Your task to perform on an android device: Open Maps and search for coffee Image 0: 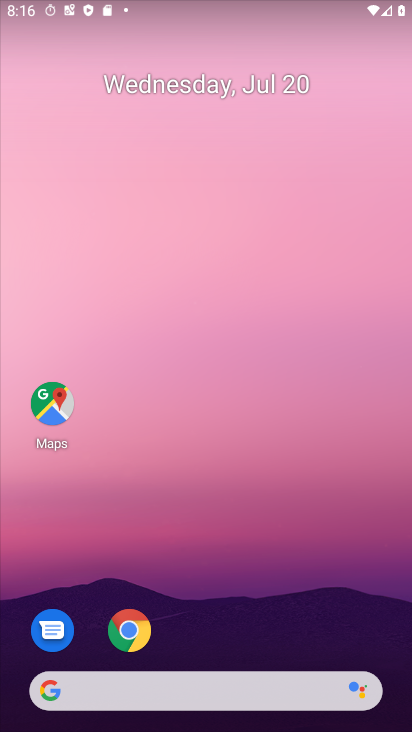
Step 0: drag from (191, 640) to (227, 128)
Your task to perform on an android device: Open Maps and search for coffee Image 1: 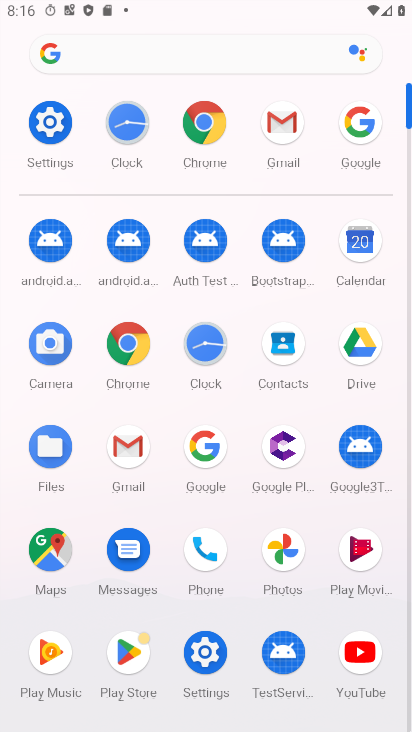
Step 1: click (40, 577)
Your task to perform on an android device: Open Maps and search for coffee Image 2: 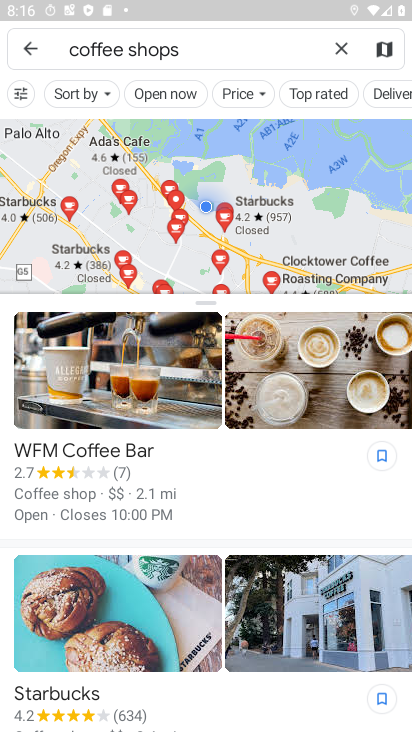
Step 2: click (339, 40)
Your task to perform on an android device: Open Maps and search for coffee Image 3: 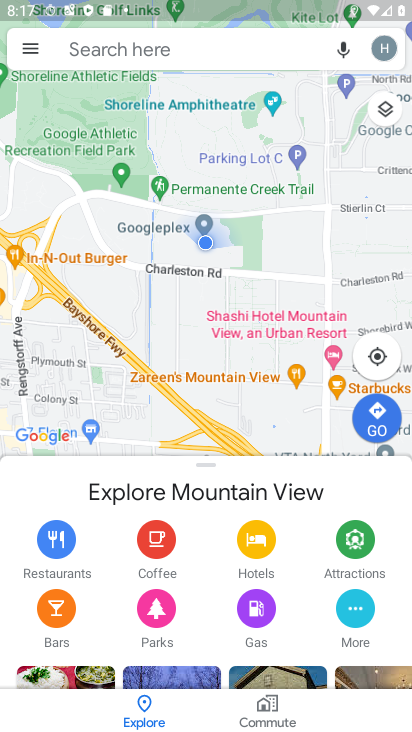
Step 3: click (242, 42)
Your task to perform on an android device: Open Maps and search for coffee Image 4: 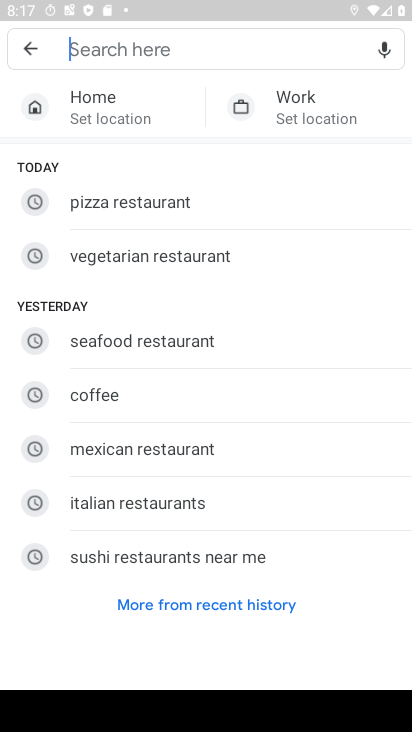
Step 4: click (137, 404)
Your task to perform on an android device: Open Maps and search for coffee Image 5: 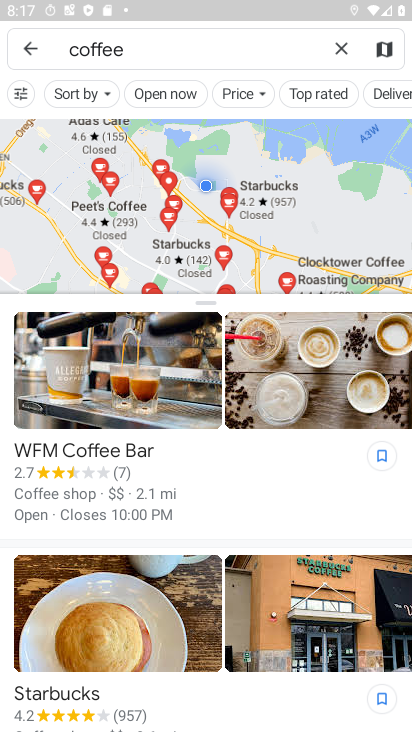
Step 5: task complete